Your task to perform on an android device: manage bookmarks in the chrome app Image 0: 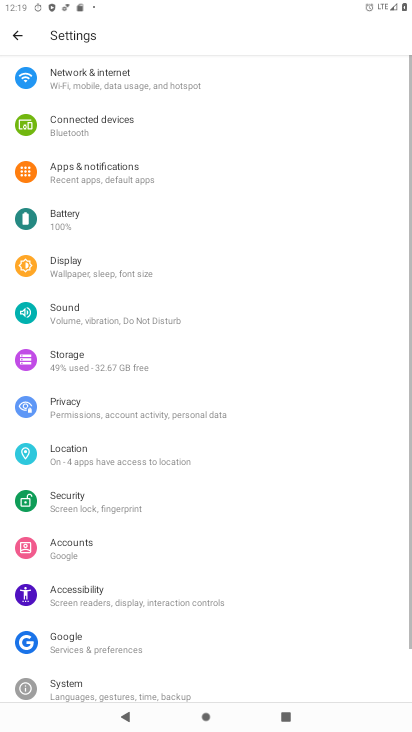
Step 0: press home button
Your task to perform on an android device: manage bookmarks in the chrome app Image 1: 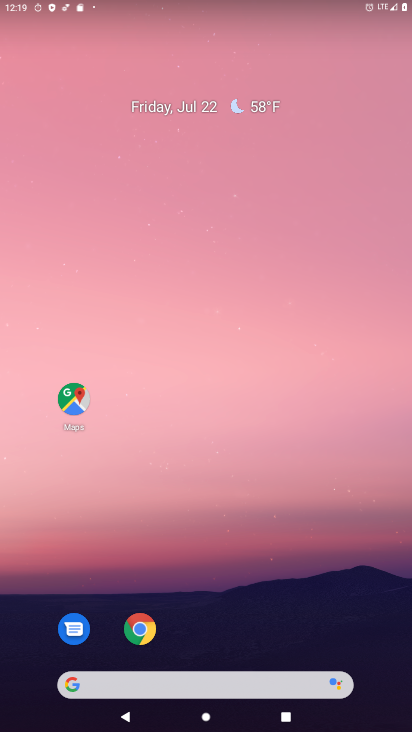
Step 1: drag from (328, 577) to (321, 160)
Your task to perform on an android device: manage bookmarks in the chrome app Image 2: 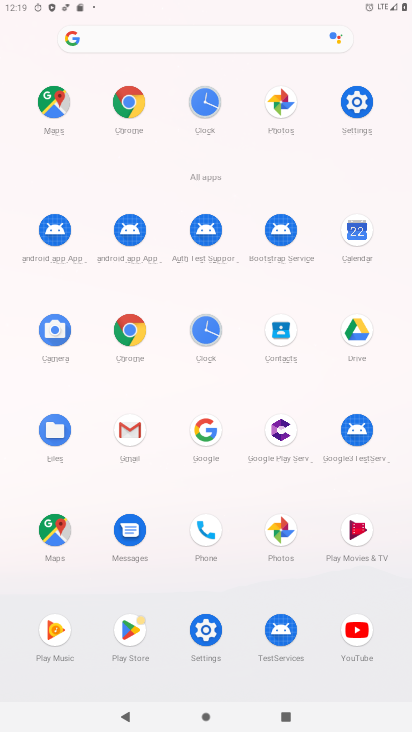
Step 2: click (134, 335)
Your task to perform on an android device: manage bookmarks in the chrome app Image 3: 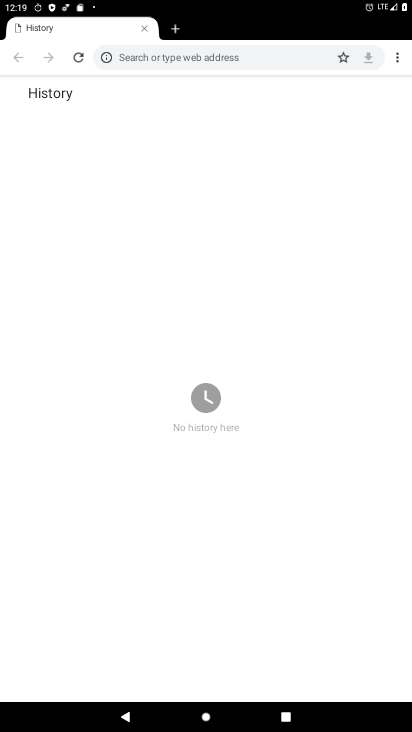
Step 3: click (395, 64)
Your task to perform on an android device: manage bookmarks in the chrome app Image 4: 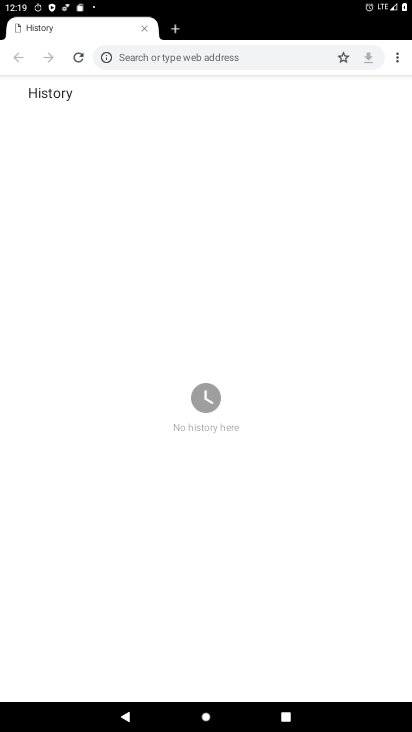
Step 4: click (397, 57)
Your task to perform on an android device: manage bookmarks in the chrome app Image 5: 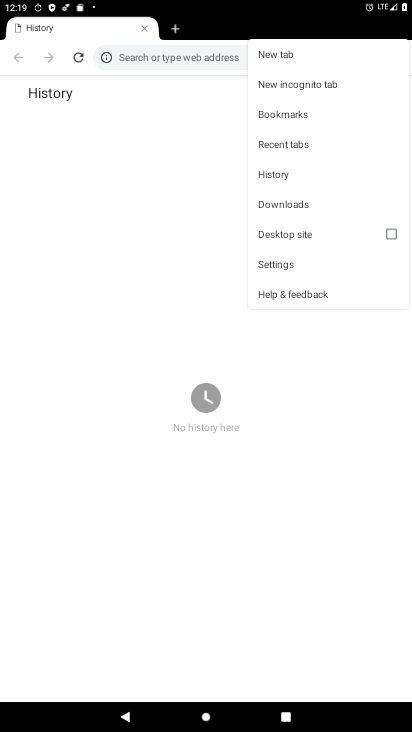
Step 5: click (335, 117)
Your task to perform on an android device: manage bookmarks in the chrome app Image 6: 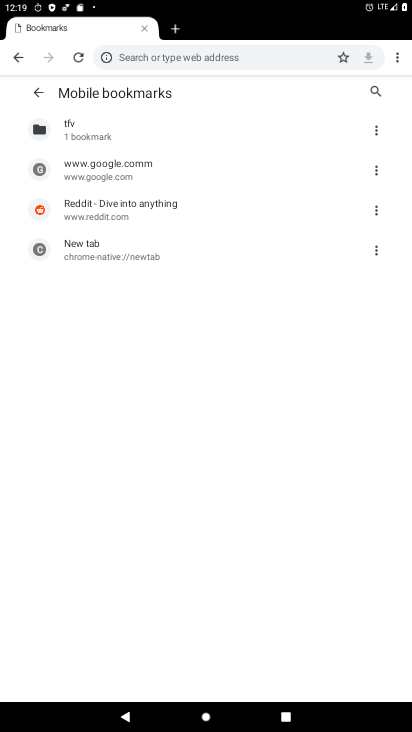
Step 6: click (376, 218)
Your task to perform on an android device: manage bookmarks in the chrome app Image 7: 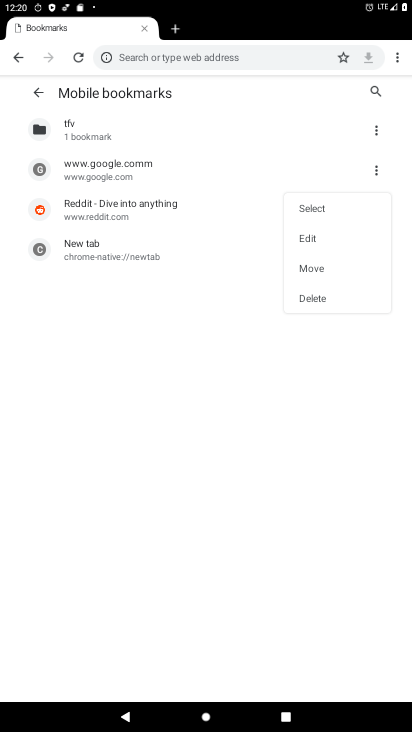
Step 7: click (322, 238)
Your task to perform on an android device: manage bookmarks in the chrome app Image 8: 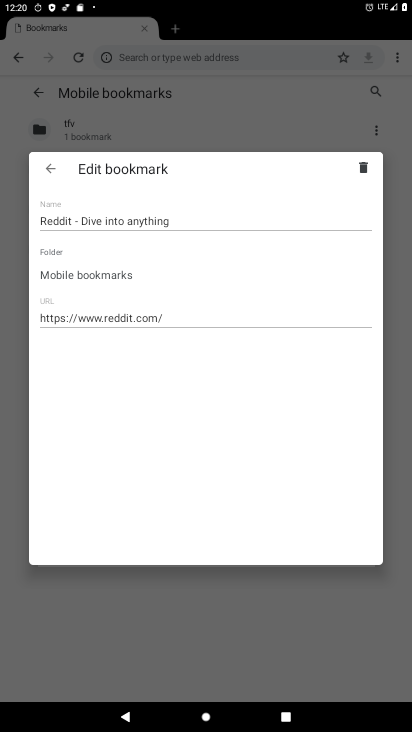
Step 8: click (244, 220)
Your task to perform on an android device: manage bookmarks in the chrome app Image 9: 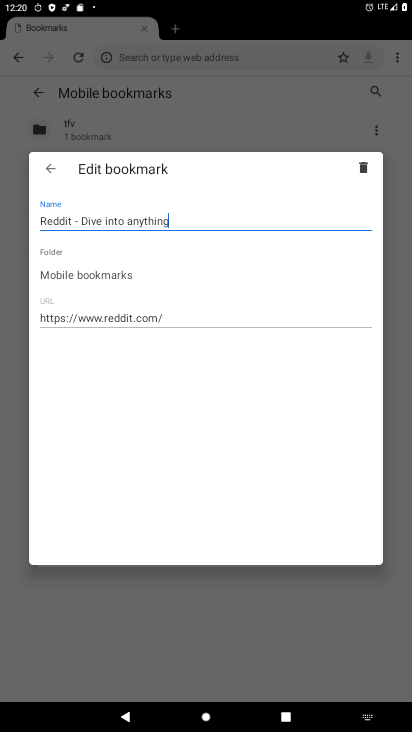
Step 9: type "g"
Your task to perform on an android device: manage bookmarks in the chrome app Image 10: 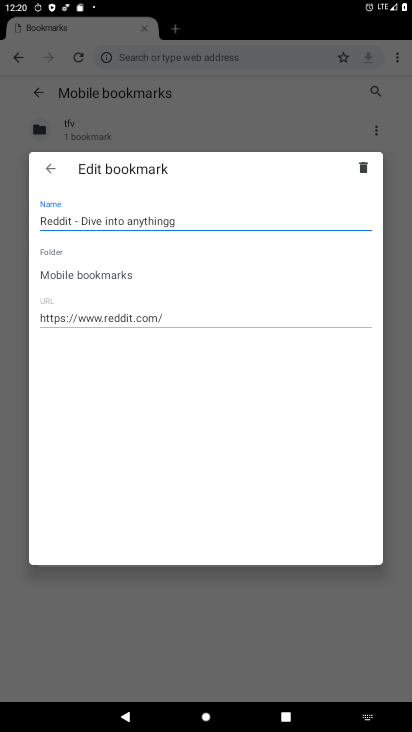
Step 10: click (55, 178)
Your task to perform on an android device: manage bookmarks in the chrome app Image 11: 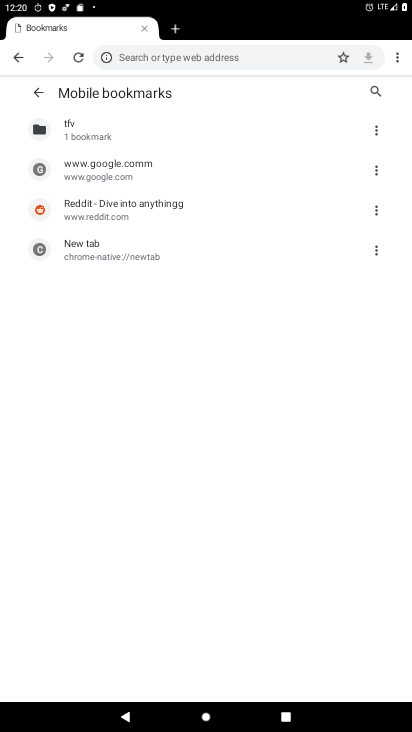
Step 11: task complete